Your task to perform on an android device: turn pop-ups on in chrome Image 0: 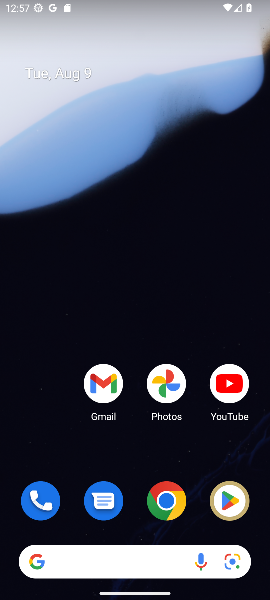
Step 0: click (166, 491)
Your task to perform on an android device: turn pop-ups on in chrome Image 1: 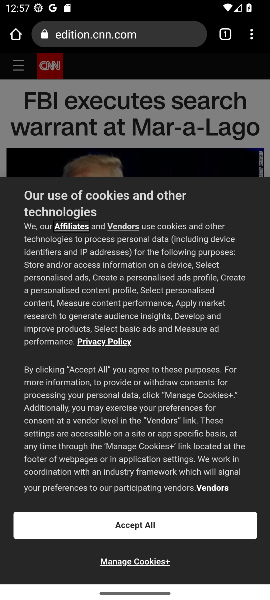
Step 1: click (257, 36)
Your task to perform on an android device: turn pop-ups on in chrome Image 2: 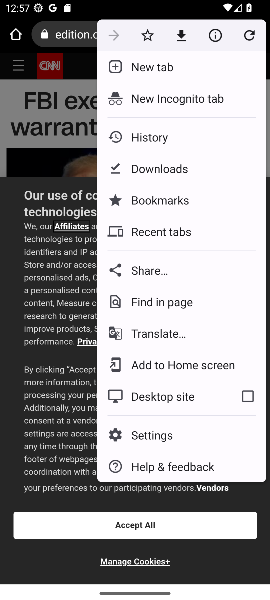
Step 2: click (157, 438)
Your task to perform on an android device: turn pop-ups on in chrome Image 3: 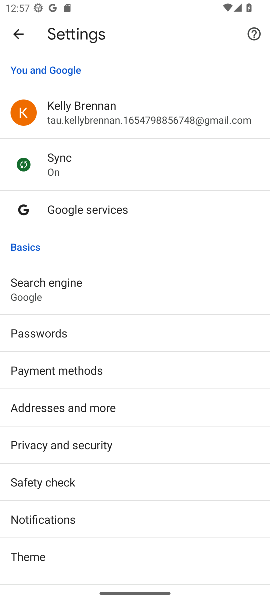
Step 3: drag from (48, 509) to (51, 292)
Your task to perform on an android device: turn pop-ups on in chrome Image 4: 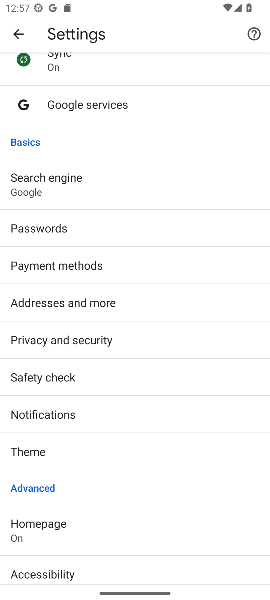
Step 4: drag from (177, 519) to (184, 194)
Your task to perform on an android device: turn pop-ups on in chrome Image 5: 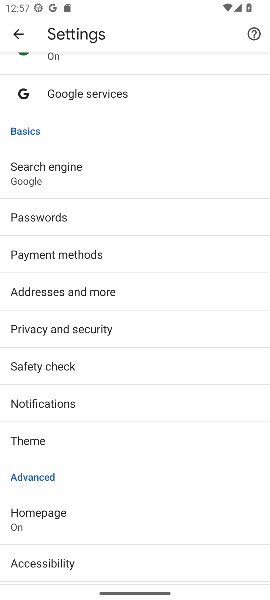
Step 5: drag from (121, 504) to (178, 126)
Your task to perform on an android device: turn pop-ups on in chrome Image 6: 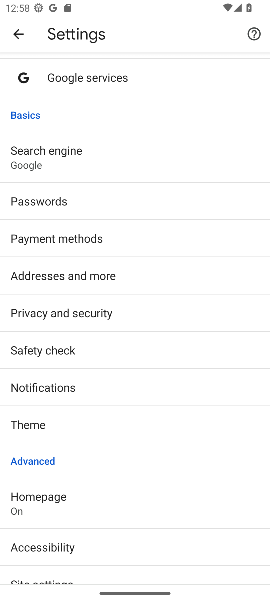
Step 6: drag from (140, 535) to (159, 129)
Your task to perform on an android device: turn pop-ups on in chrome Image 7: 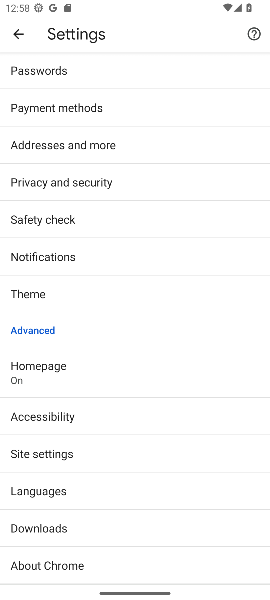
Step 7: click (69, 452)
Your task to perform on an android device: turn pop-ups on in chrome Image 8: 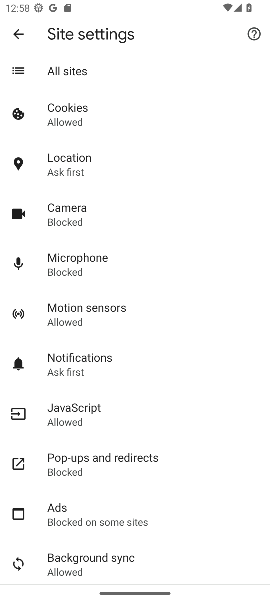
Step 8: drag from (96, 500) to (118, 25)
Your task to perform on an android device: turn pop-ups on in chrome Image 9: 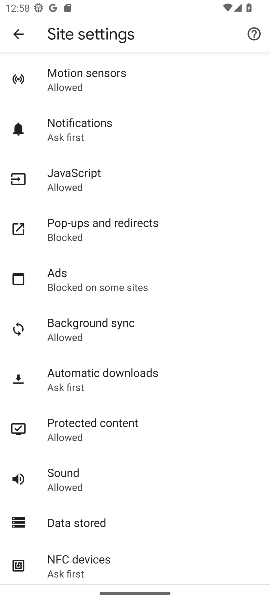
Step 9: click (112, 228)
Your task to perform on an android device: turn pop-ups on in chrome Image 10: 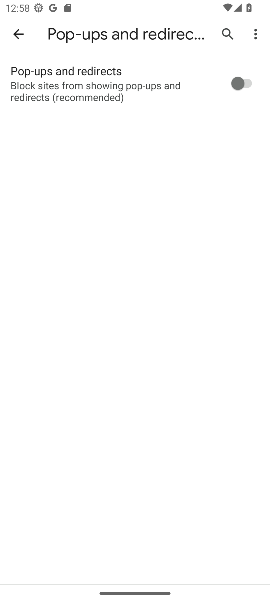
Step 10: click (239, 87)
Your task to perform on an android device: turn pop-ups on in chrome Image 11: 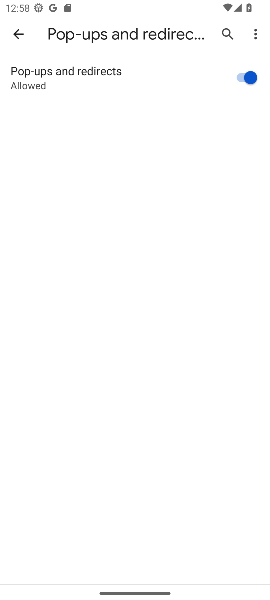
Step 11: task complete